Your task to perform on an android device: change text size in settings app Image 0: 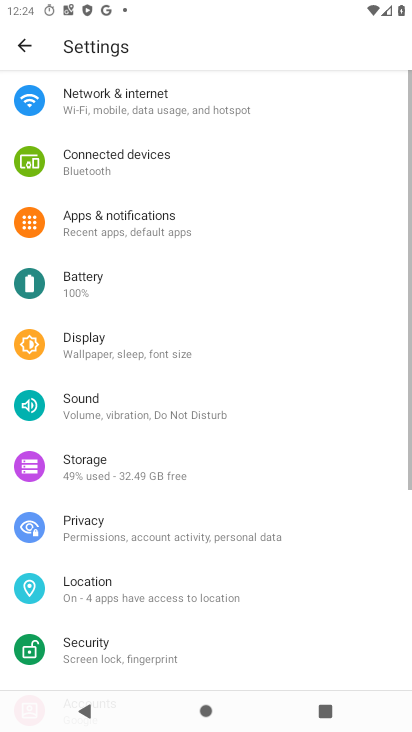
Step 0: click (153, 361)
Your task to perform on an android device: change text size in settings app Image 1: 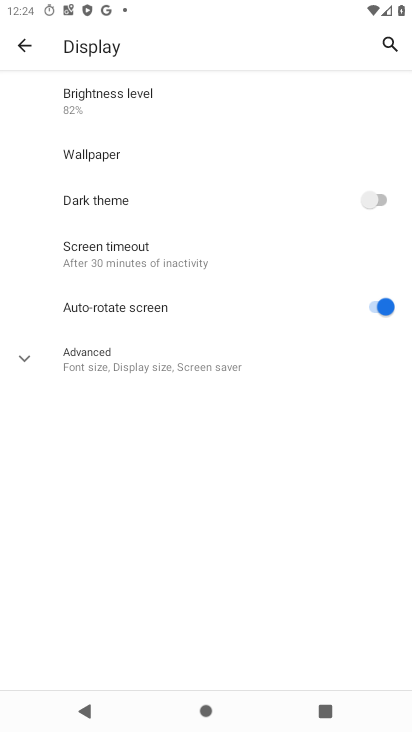
Step 1: click (153, 364)
Your task to perform on an android device: change text size in settings app Image 2: 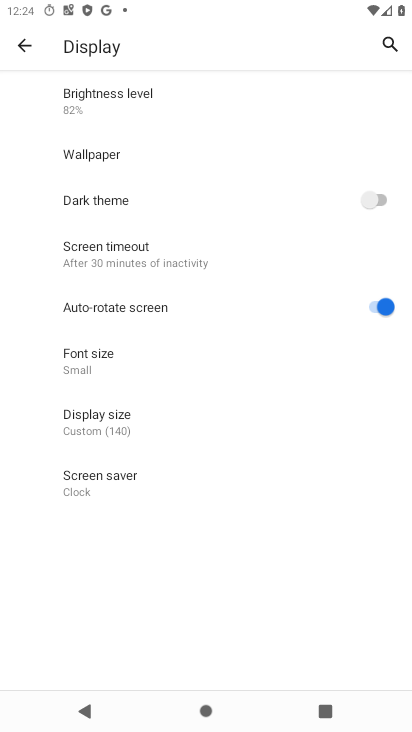
Step 2: click (115, 364)
Your task to perform on an android device: change text size in settings app Image 3: 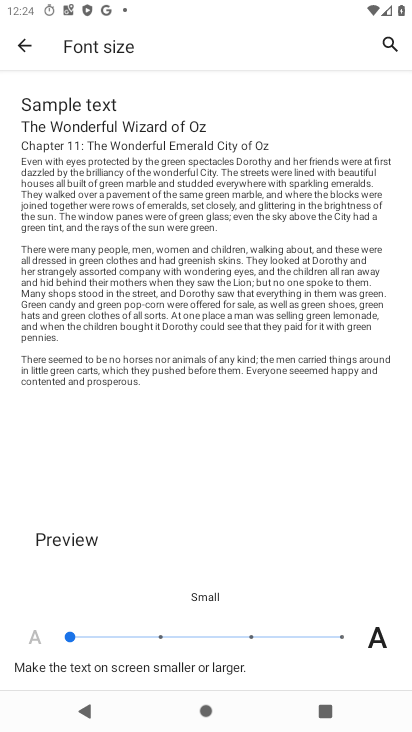
Step 3: click (252, 630)
Your task to perform on an android device: change text size in settings app Image 4: 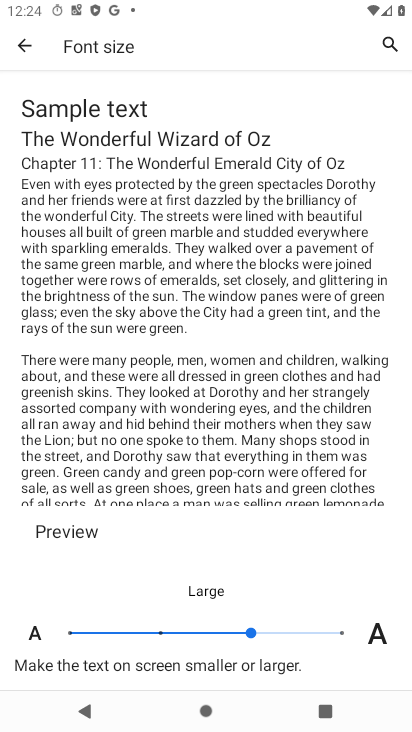
Step 4: task complete